Your task to perform on an android device: allow cookies in the chrome app Image 0: 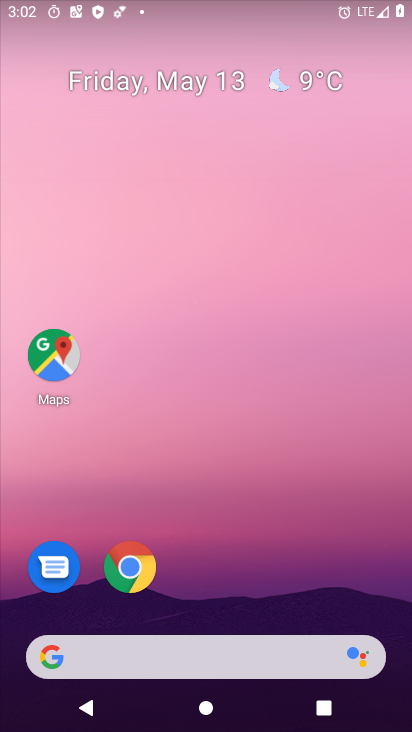
Step 0: click (125, 578)
Your task to perform on an android device: allow cookies in the chrome app Image 1: 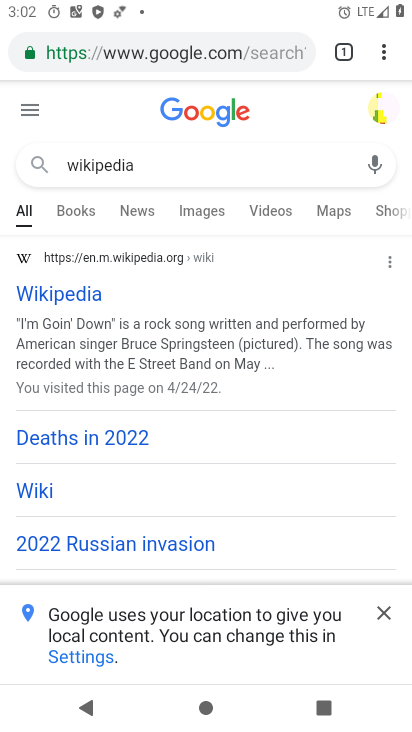
Step 1: click (392, 58)
Your task to perform on an android device: allow cookies in the chrome app Image 2: 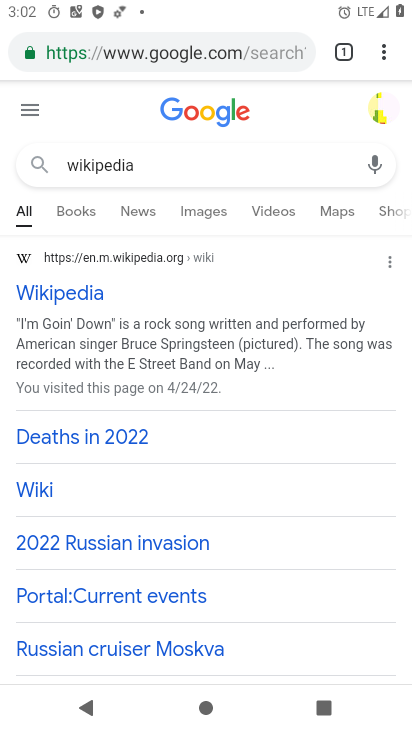
Step 2: click (387, 52)
Your task to perform on an android device: allow cookies in the chrome app Image 3: 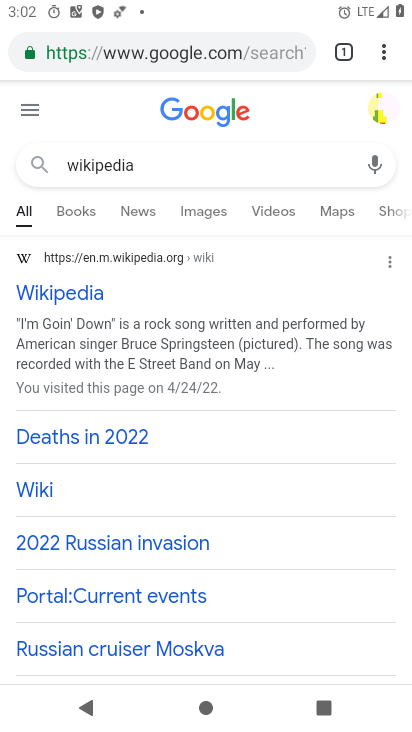
Step 3: click (384, 54)
Your task to perform on an android device: allow cookies in the chrome app Image 4: 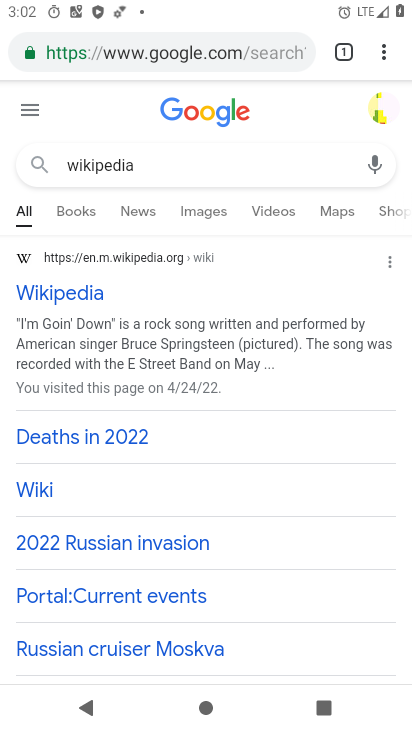
Step 4: click (383, 46)
Your task to perform on an android device: allow cookies in the chrome app Image 5: 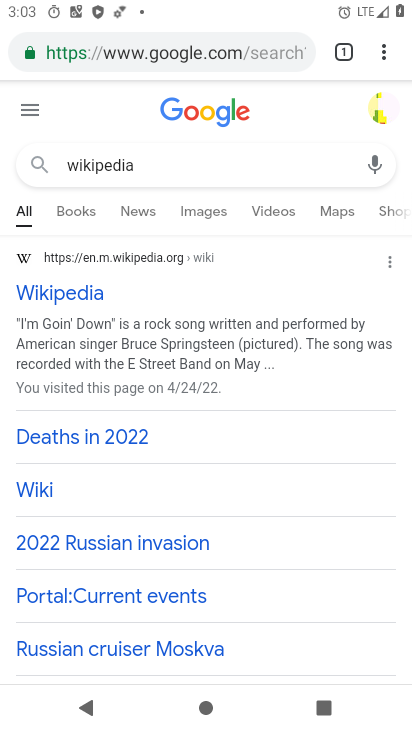
Step 5: click (382, 60)
Your task to perform on an android device: allow cookies in the chrome app Image 6: 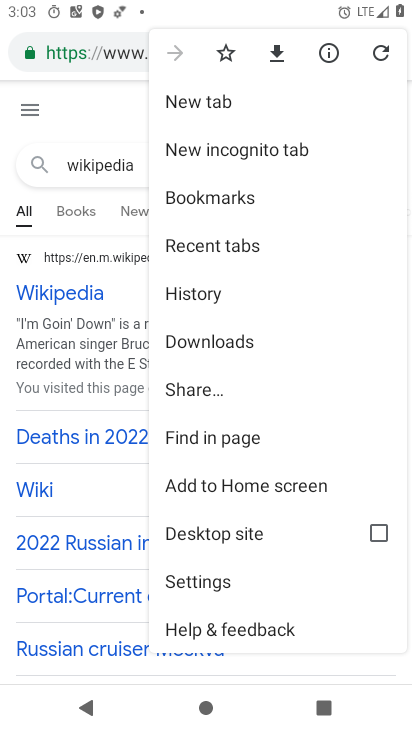
Step 6: click (213, 585)
Your task to perform on an android device: allow cookies in the chrome app Image 7: 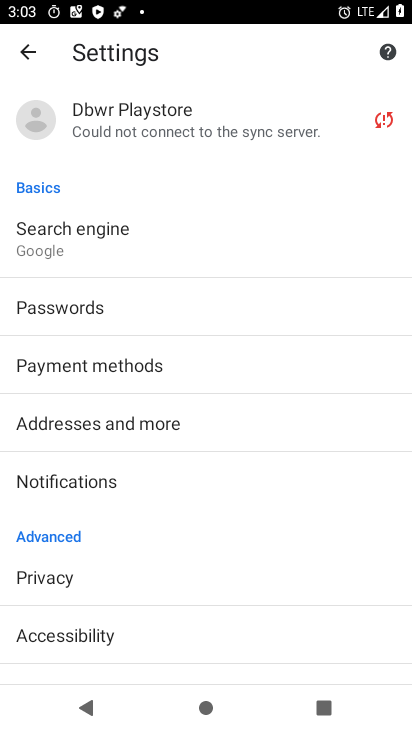
Step 7: drag from (88, 538) to (90, 213)
Your task to perform on an android device: allow cookies in the chrome app Image 8: 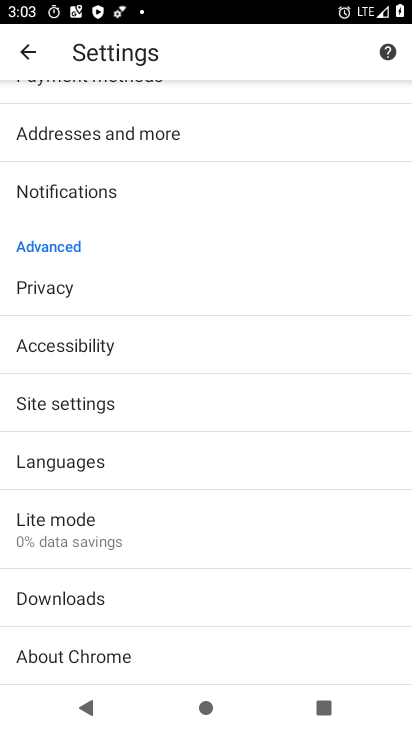
Step 8: click (83, 408)
Your task to perform on an android device: allow cookies in the chrome app Image 9: 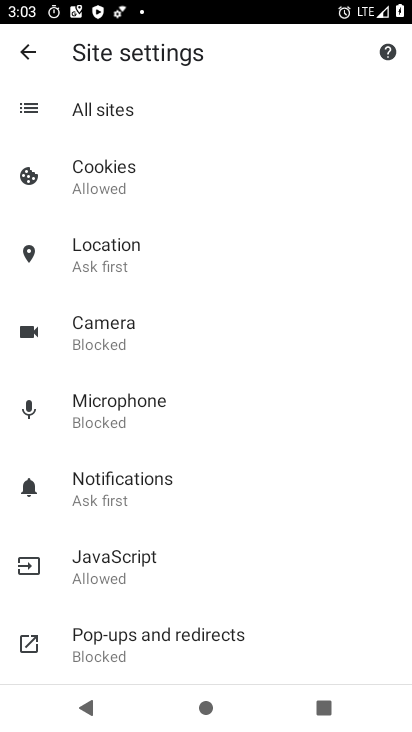
Step 9: click (95, 186)
Your task to perform on an android device: allow cookies in the chrome app Image 10: 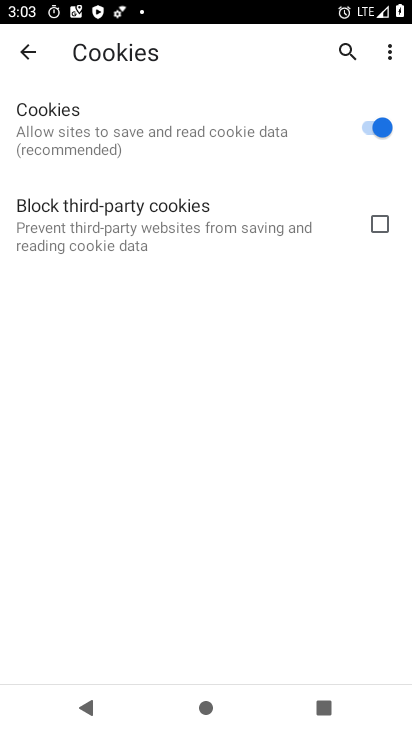
Step 10: task complete